Your task to perform on an android device: turn pop-ups off in chrome Image 0: 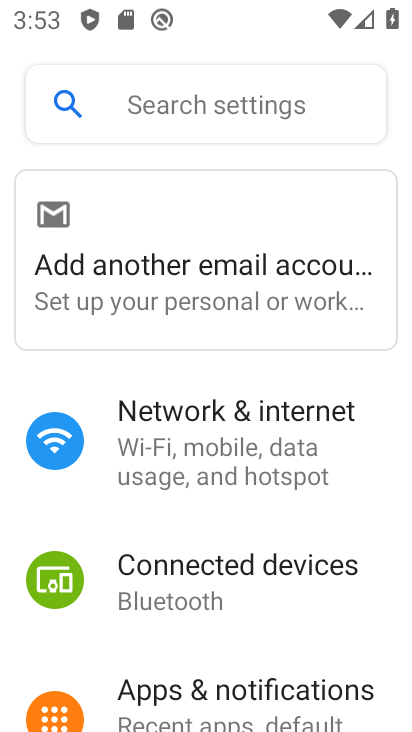
Step 0: press home button
Your task to perform on an android device: turn pop-ups off in chrome Image 1: 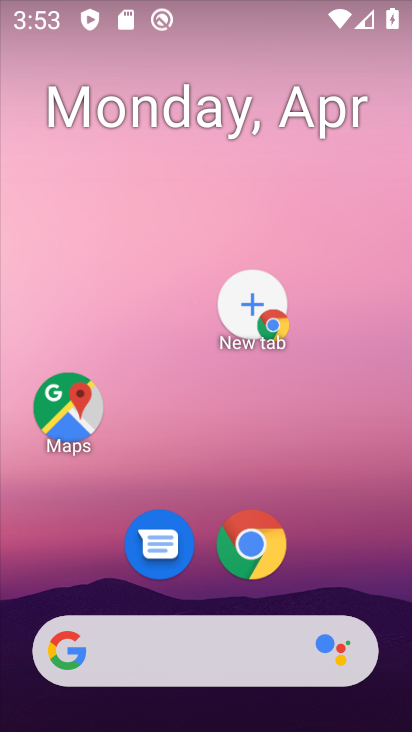
Step 1: click (272, 555)
Your task to perform on an android device: turn pop-ups off in chrome Image 2: 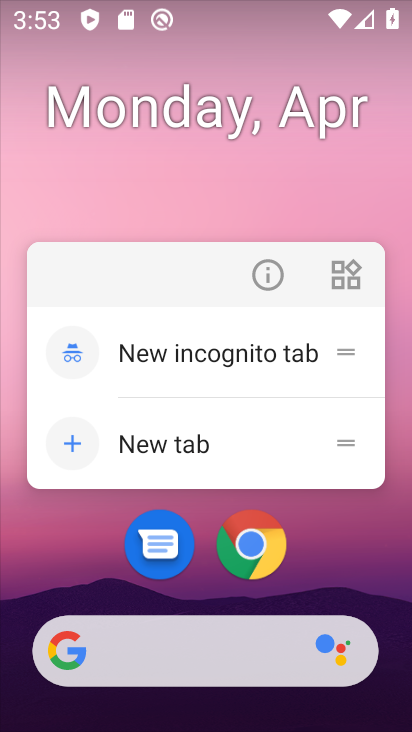
Step 2: click (226, 429)
Your task to perform on an android device: turn pop-ups off in chrome Image 3: 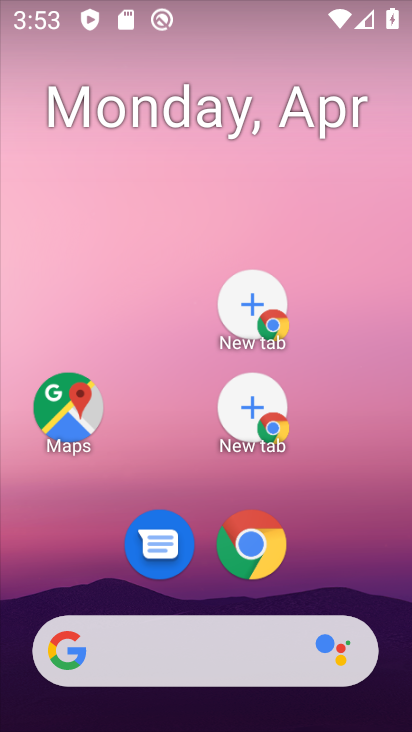
Step 3: click (251, 414)
Your task to perform on an android device: turn pop-ups off in chrome Image 4: 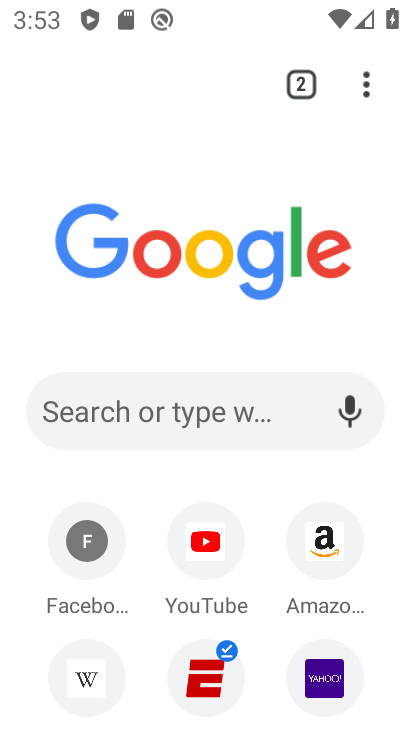
Step 4: click (360, 85)
Your task to perform on an android device: turn pop-ups off in chrome Image 5: 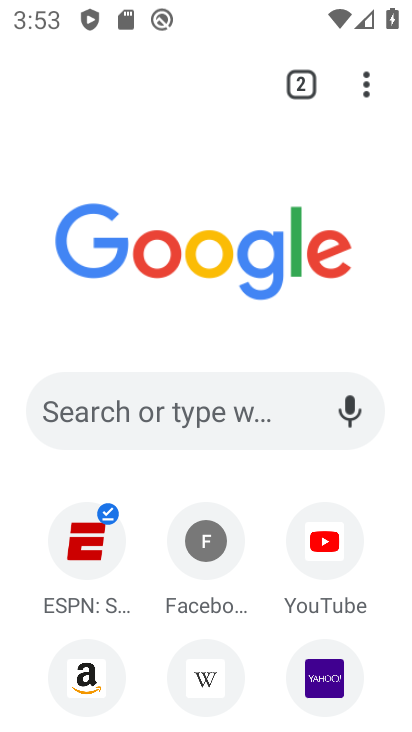
Step 5: click (362, 87)
Your task to perform on an android device: turn pop-ups off in chrome Image 6: 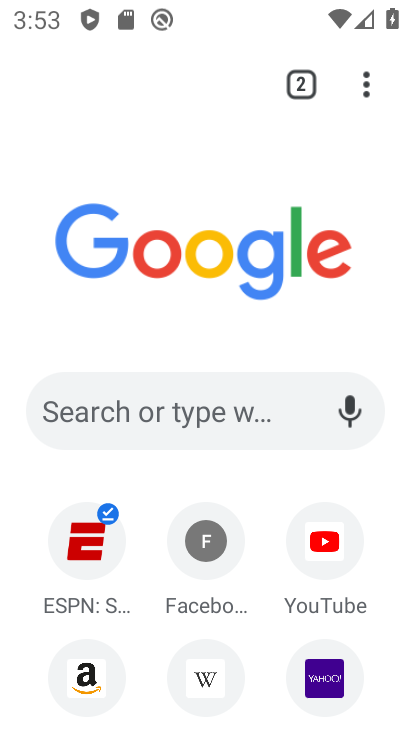
Step 6: click (351, 80)
Your task to perform on an android device: turn pop-ups off in chrome Image 7: 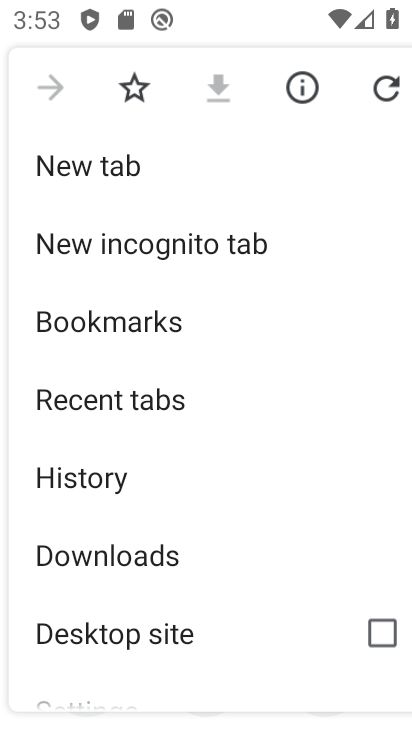
Step 7: drag from (281, 580) to (271, 49)
Your task to perform on an android device: turn pop-ups off in chrome Image 8: 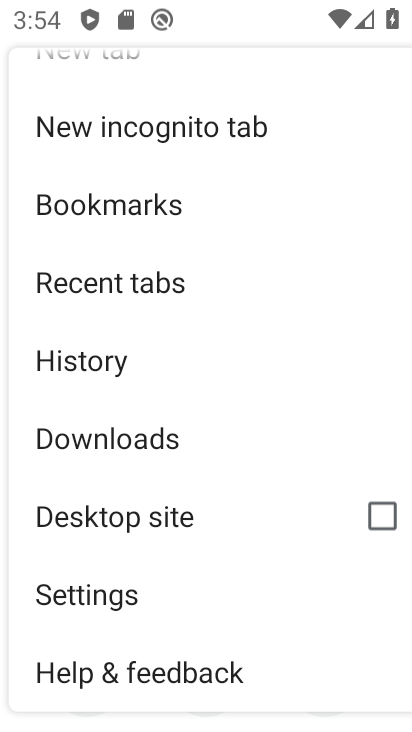
Step 8: click (201, 582)
Your task to perform on an android device: turn pop-ups off in chrome Image 9: 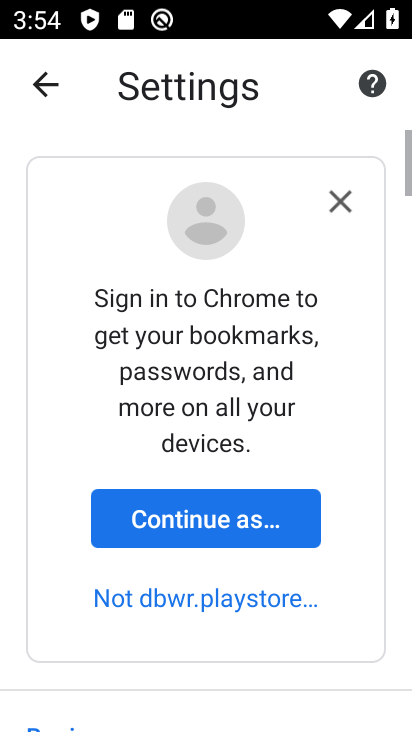
Step 9: drag from (201, 582) to (220, 145)
Your task to perform on an android device: turn pop-ups off in chrome Image 10: 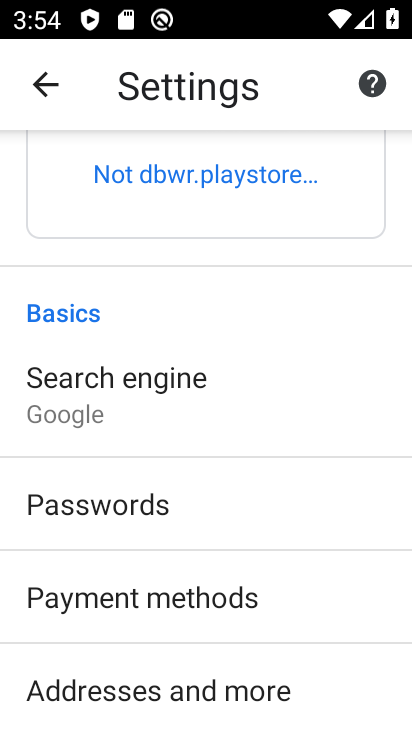
Step 10: drag from (217, 687) to (221, 255)
Your task to perform on an android device: turn pop-ups off in chrome Image 11: 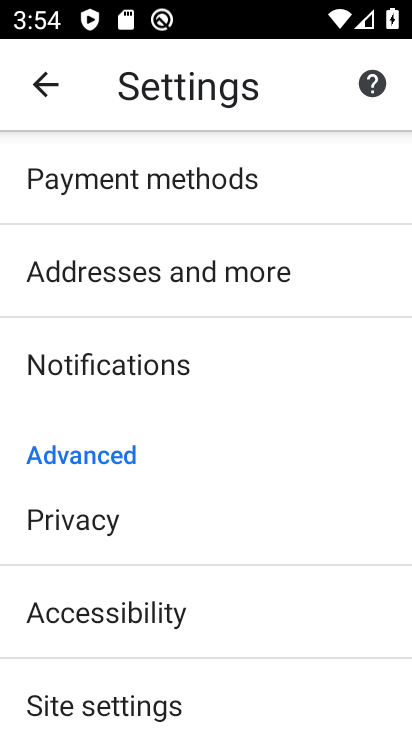
Step 11: click (166, 681)
Your task to perform on an android device: turn pop-ups off in chrome Image 12: 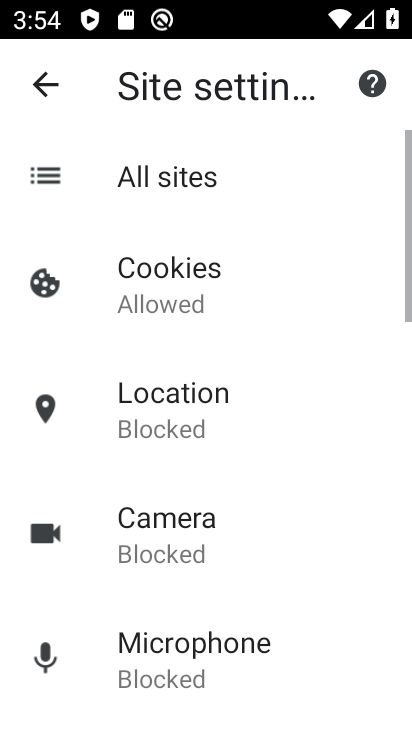
Step 12: drag from (172, 680) to (223, 198)
Your task to perform on an android device: turn pop-ups off in chrome Image 13: 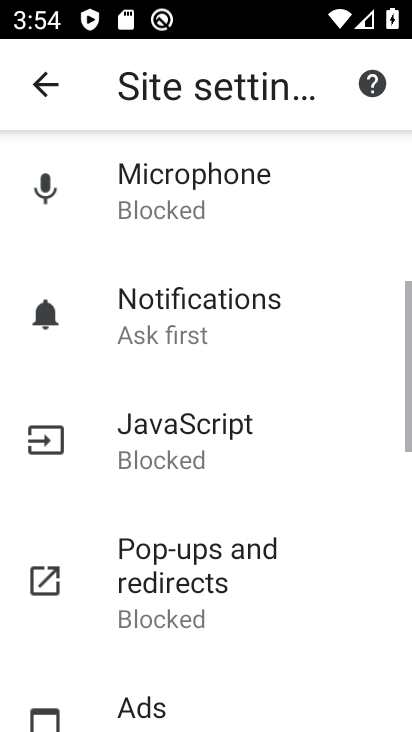
Step 13: click (190, 597)
Your task to perform on an android device: turn pop-ups off in chrome Image 14: 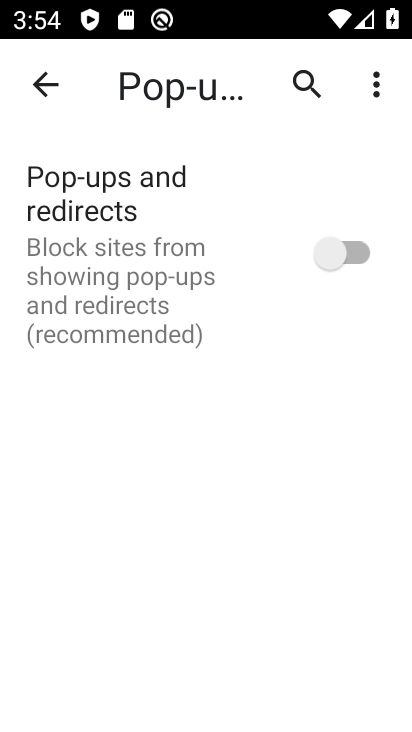
Step 14: task complete